Your task to perform on an android device: Go to Google maps Image 0: 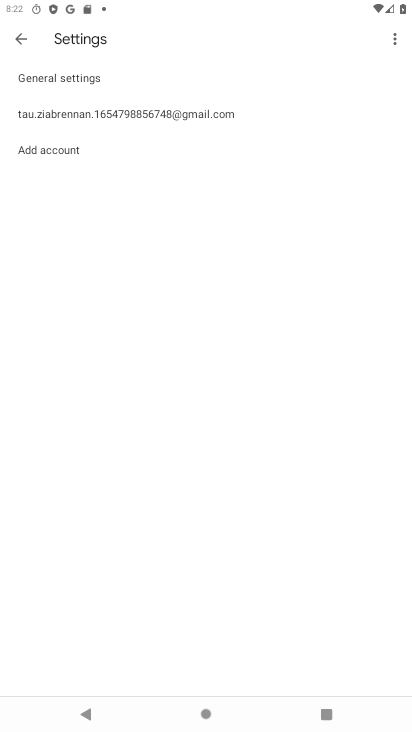
Step 0: press home button
Your task to perform on an android device: Go to Google maps Image 1: 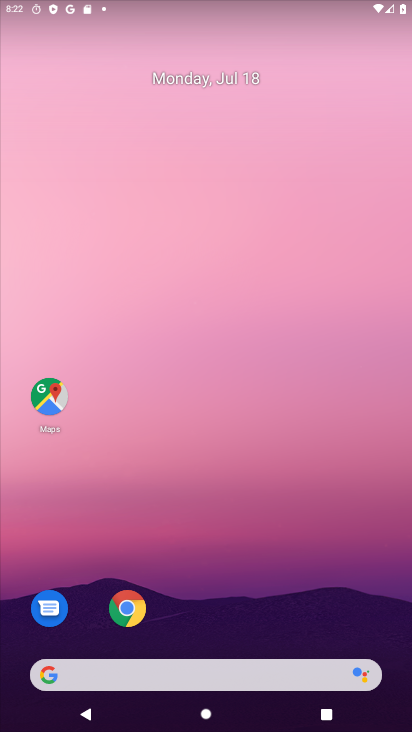
Step 1: click (48, 411)
Your task to perform on an android device: Go to Google maps Image 2: 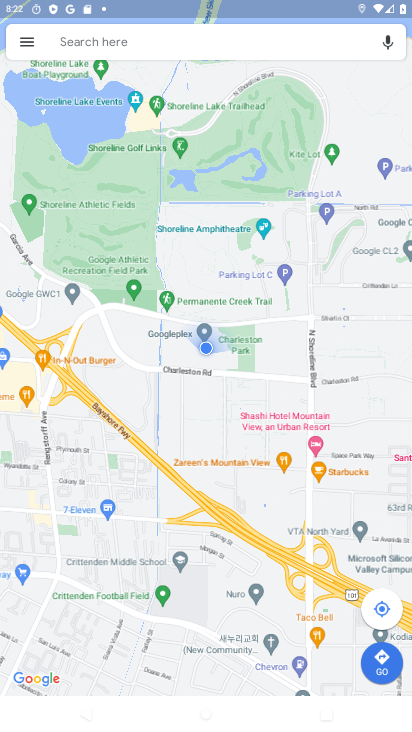
Step 2: task complete